Your task to perform on an android device: Open Amazon Image 0: 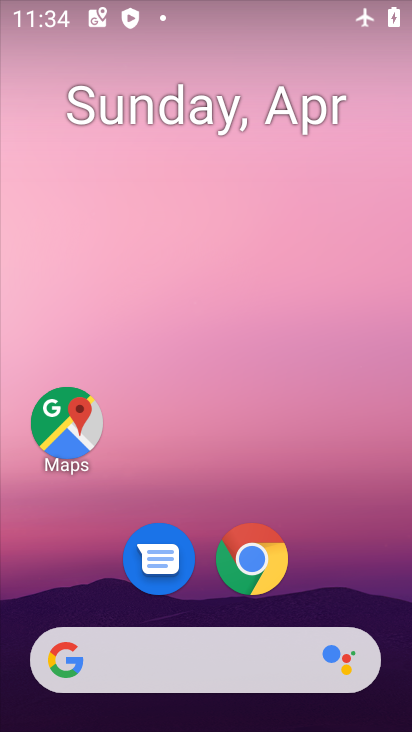
Step 0: click (268, 562)
Your task to perform on an android device: Open Amazon Image 1: 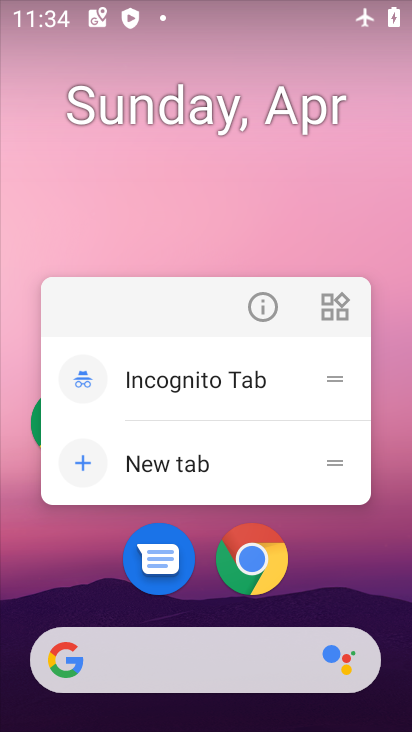
Step 1: click (255, 543)
Your task to perform on an android device: Open Amazon Image 2: 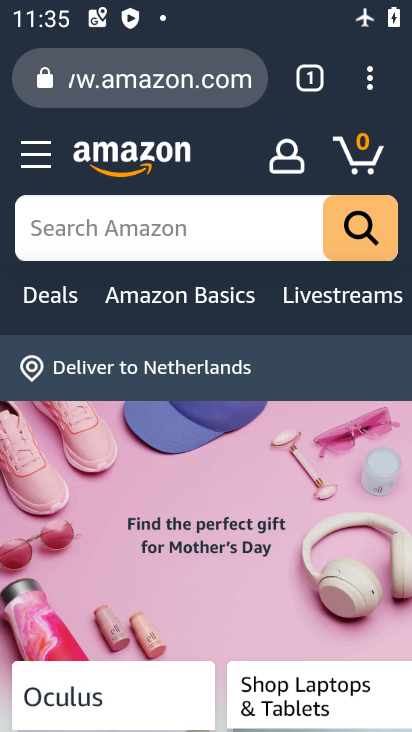
Step 2: task complete